Your task to perform on an android device: Search for pizza restaurants on Maps Image 0: 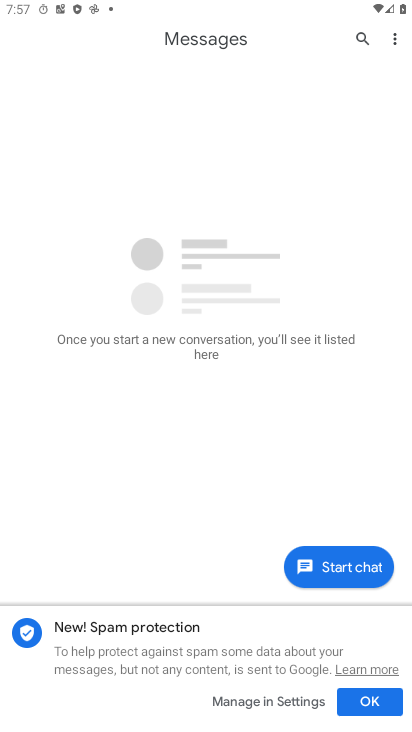
Step 0: press home button
Your task to perform on an android device: Search for pizza restaurants on Maps Image 1: 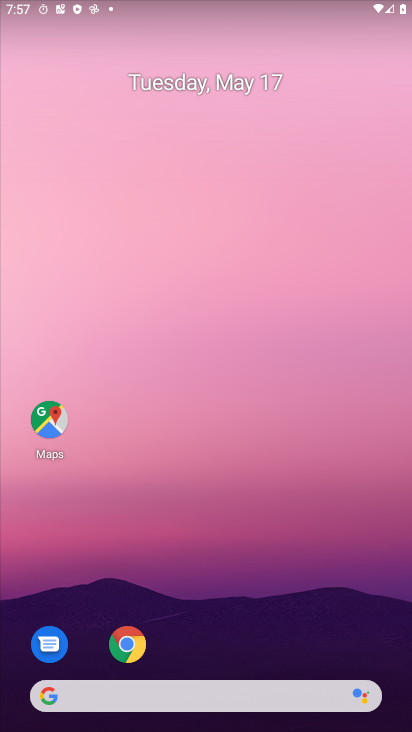
Step 1: drag from (389, 614) to (150, 35)
Your task to perform on an android device: Search for pizza restaurants on Maps Image 2: 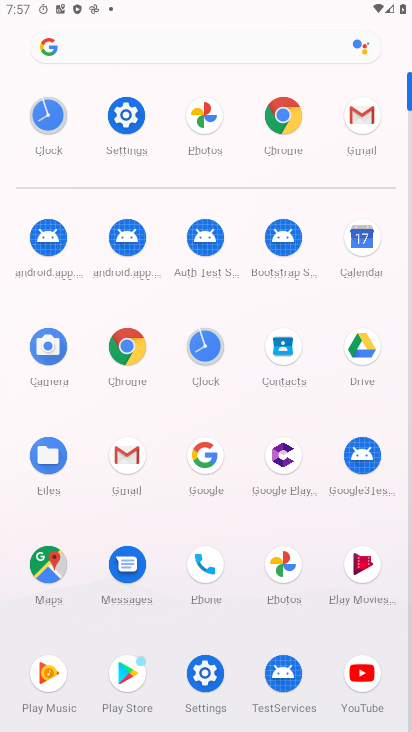
Step 2: click (58, 573)
Your task to perform on an android device: Search for pizza restaurants on Maps Image 3: 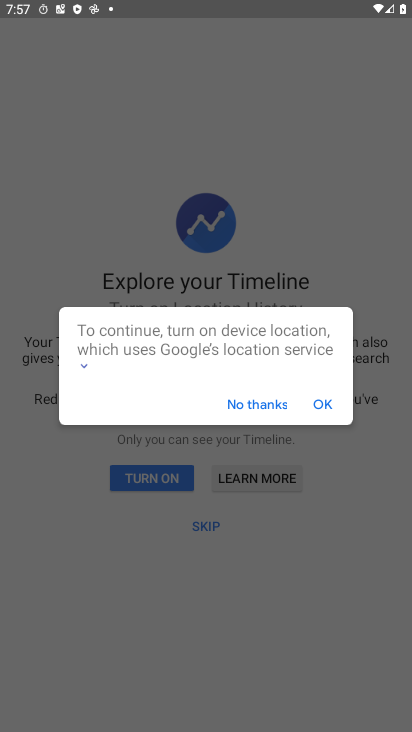
Step 3: press back button
Your task to perform on an android device: Search for pizza restaurants on Maps Image 4: 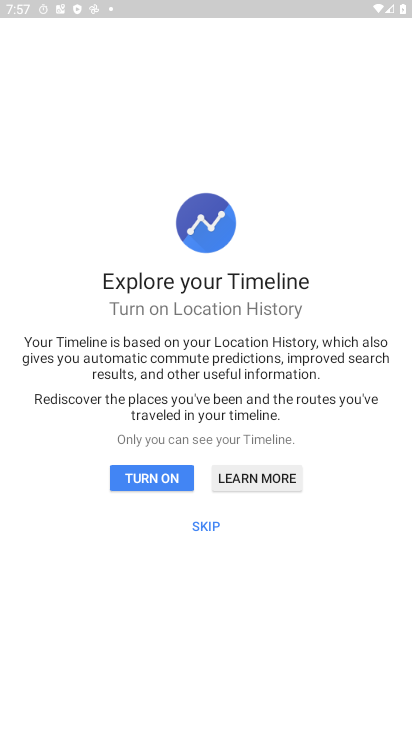
Step 4: press back button
Your task to perform on an android device: Search for pizza restaurants on Maps Image 5: 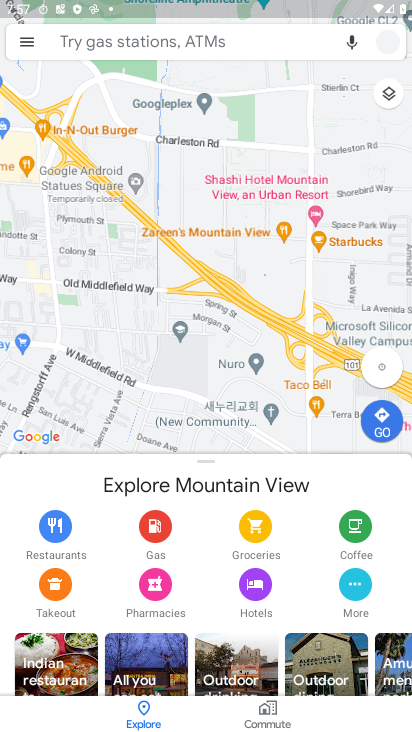
Step 5: click (173, 42)
Your task to perform on an android device: Search for pizza restaurants on Maps Image 6: 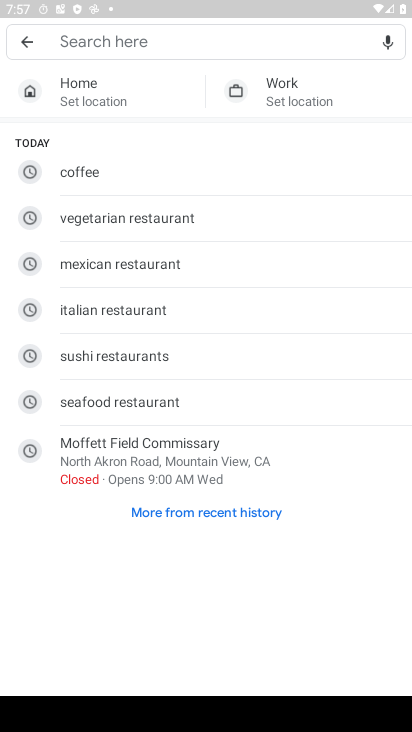
Step 6: type "pizza restaurants"
Your task to perform on an android device: Search for pizza restaurants on Maps Image 7: 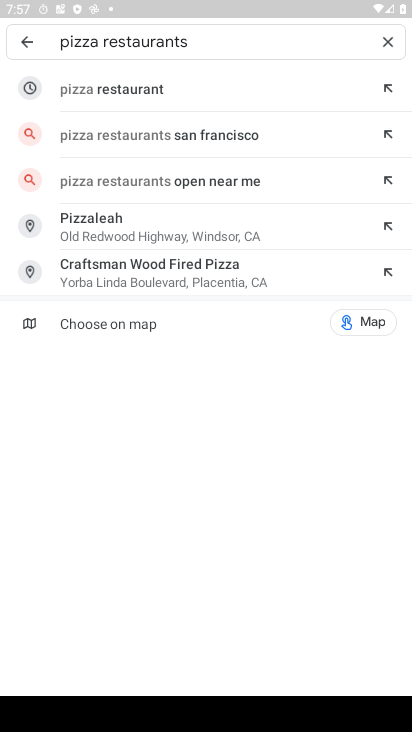
Step 7: type "'"
Your task to perform on an android device: Search for pizza restaurants on Maps Image 8: 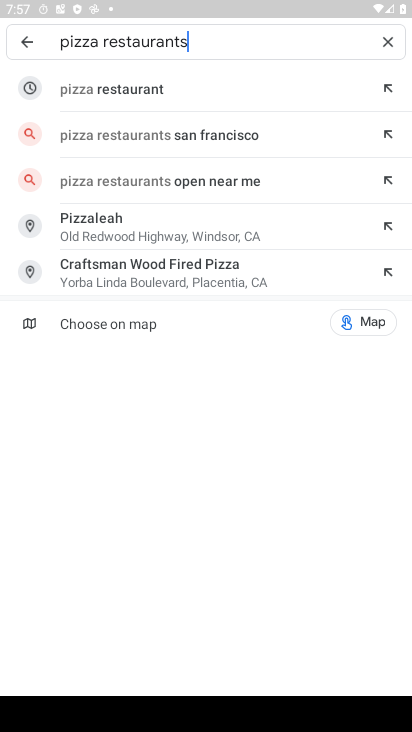
Step 8: click (153, 88)
Your task to perform on an android device: Search for pizza restaurants on Maps Image 9: 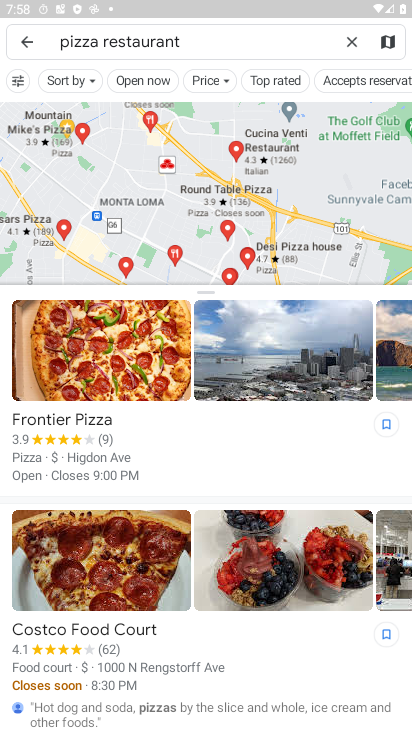
Step 9: task complete